Your task to perform on an android device: Open Amazon Image 0: 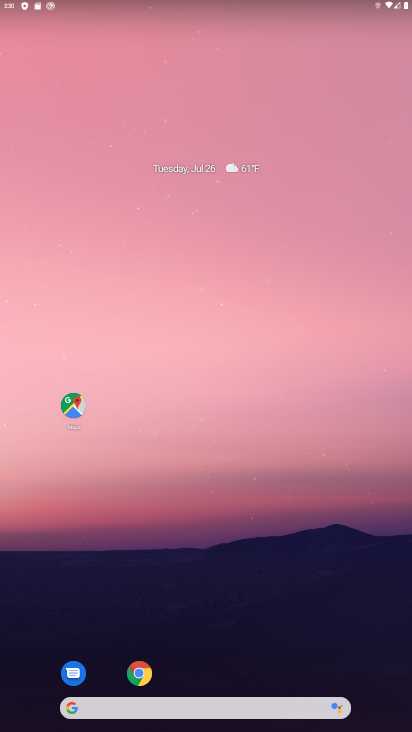
Step 0: press home button
Your task to perform on an android device: Open Amazon Image 1: 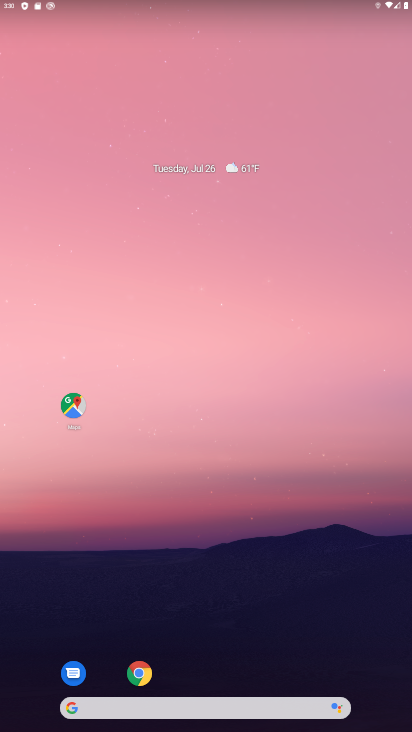
Step 1: click (136, 671)
Your task to perform on an android device: Open Amazon Image 2: 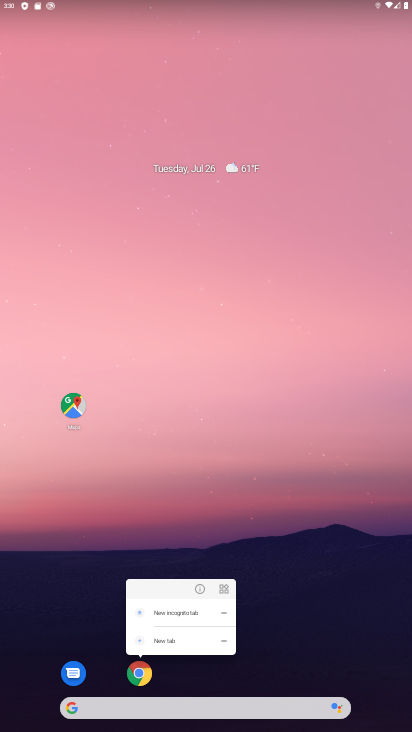
Step 2: click (136, 671)
Your task to perform on an android device: Open Amazon Image 3: 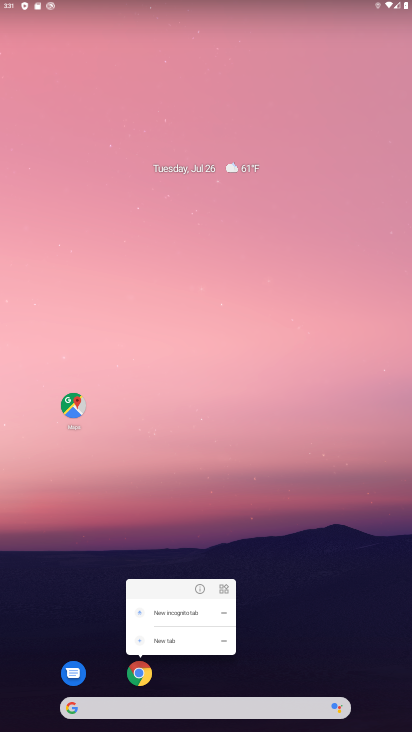
Step 3: click (136, 671)
Your task to perform on an android device: Open Amazon Image 4: 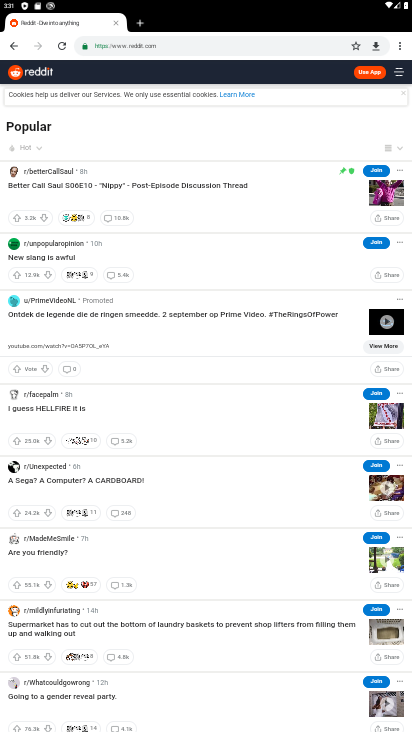
Step 4: click (137, 17)
Your task to perform on an android device: Open Amazon Image 5: 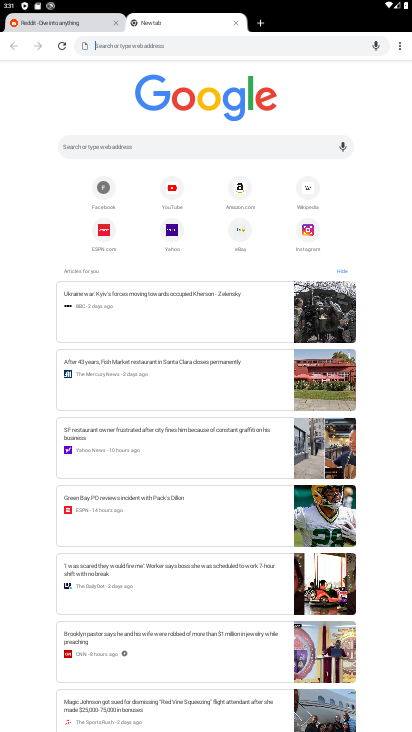
Step 5: click (238, 183)
Your task to perform on an android device: Open Amazon Image 6: 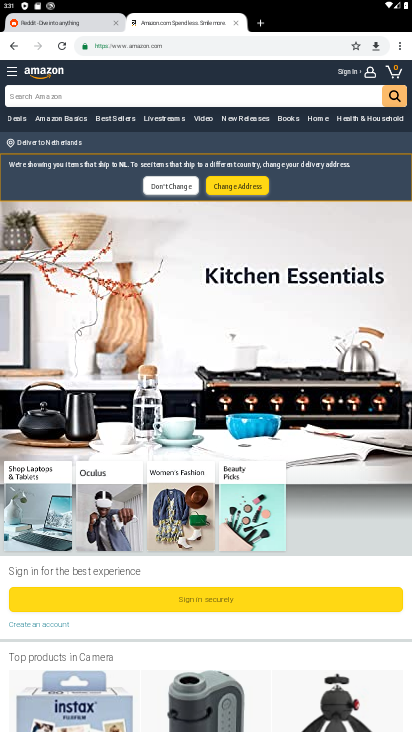
Step 6: task complete